Your task to perform on an android device: Go to Yahoo.com Image 0: 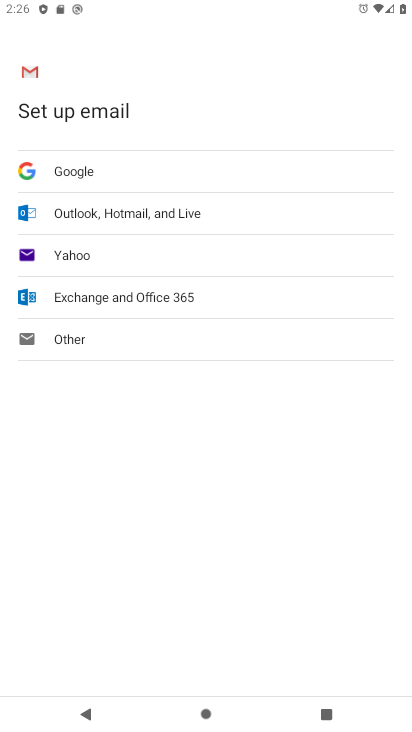
Step 0: press home button
Your task to perform on an android device: Go to Yahoo.com Image 1: 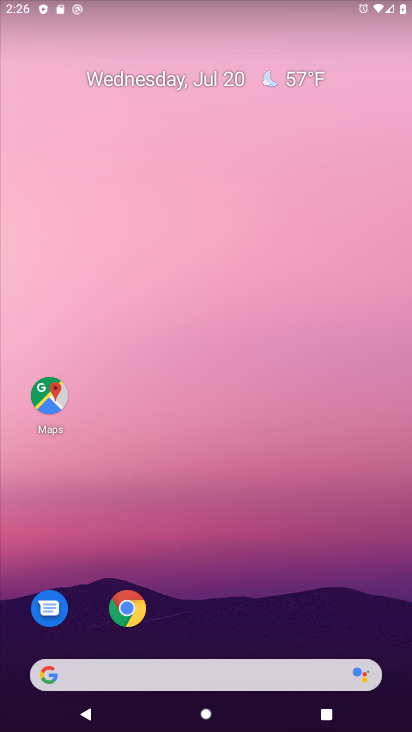
Step 1: click (123, 605)
Your task to perform on an android device: Go to Yahoo.com Image 2: 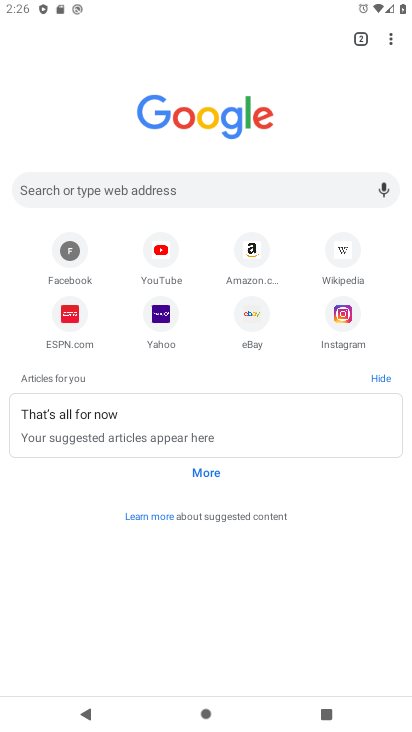
Step 2: click (154, 310)
Your task to perform on an android device: Go to Yahoo.com Image 3: 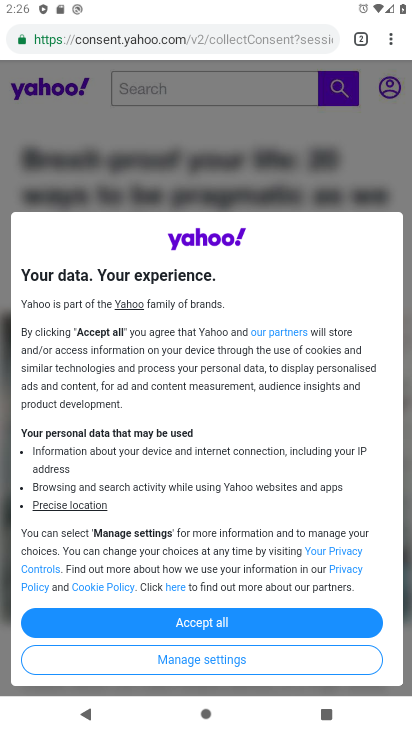
Step 3: click (291, 188)
Your task to perform on an android device: Go to Yahoo.com Image 4: 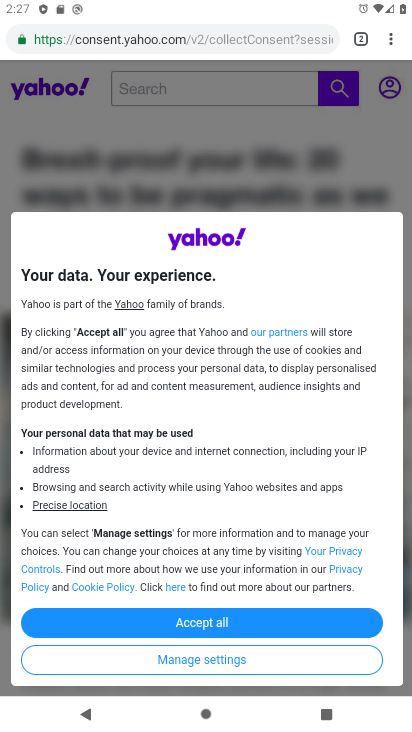
Step 4: click (220, 627)
Your task to perform on an android device: Go to Yahoo.com Image 5: 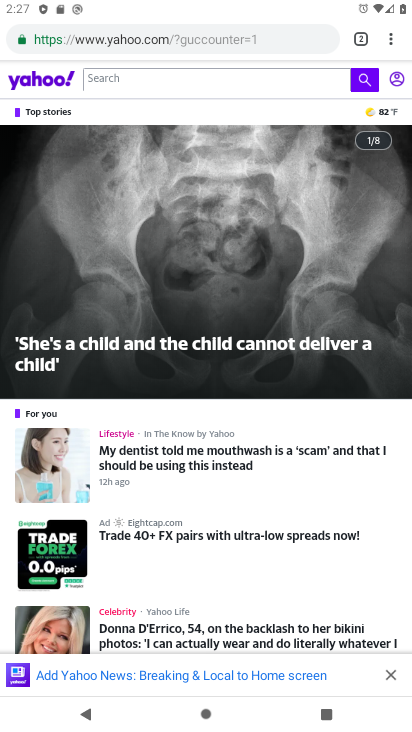
Step 5: click (389, 673)
Your task to perform on an android device: Go to Yahoo.com Image 6: 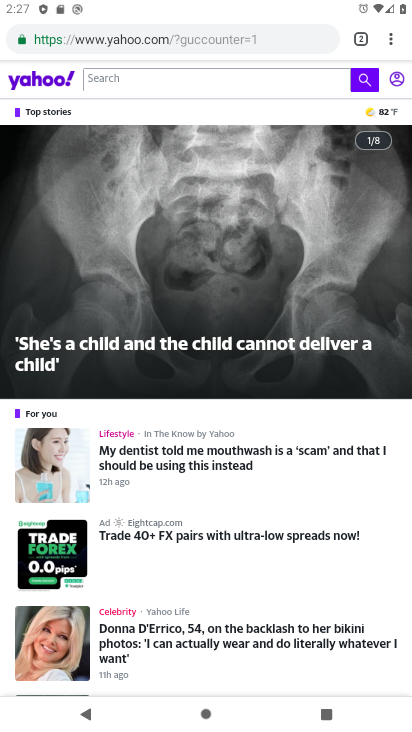
Step 6: task complete